Your task to perform on an android device: Search for sushi restaurants on Maps Image 0: 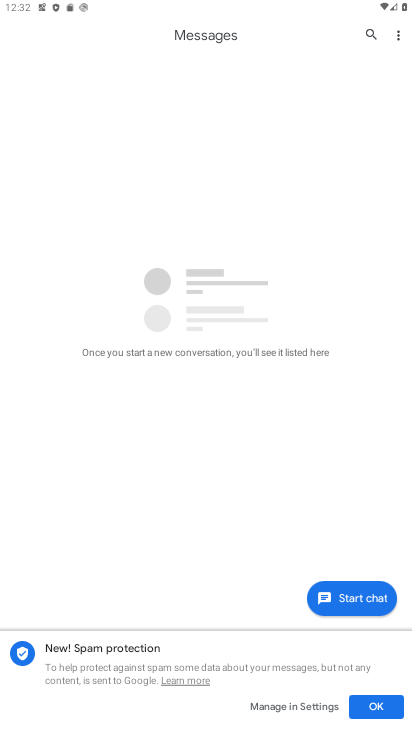
Step 0: drag from (209, 572) to (232, 298)
Your task to perform on an android device: Search for sushi restaurants on Maps Image 1: 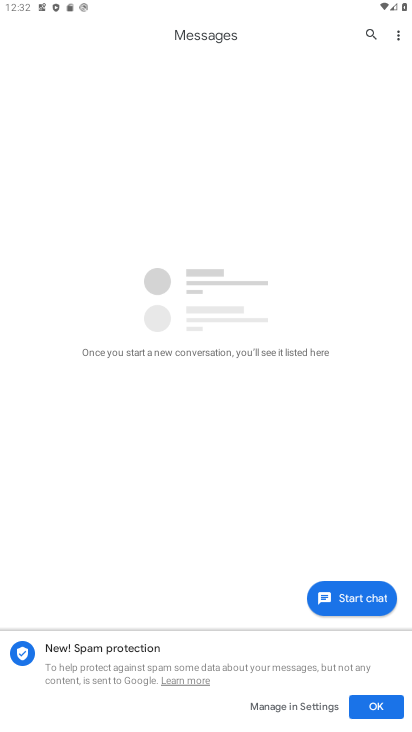
Step 1: press home button
Your task to perform on an android device: Search for sushi restaurants on Maps Image 2: 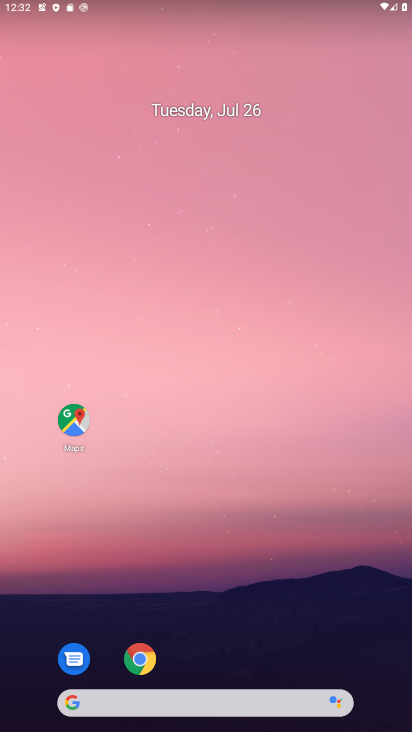
Step 2: drag from (241, 643) to (317, 49)
Your task to perform on an android device: Search for sushi restaurants on Maps Image 3: 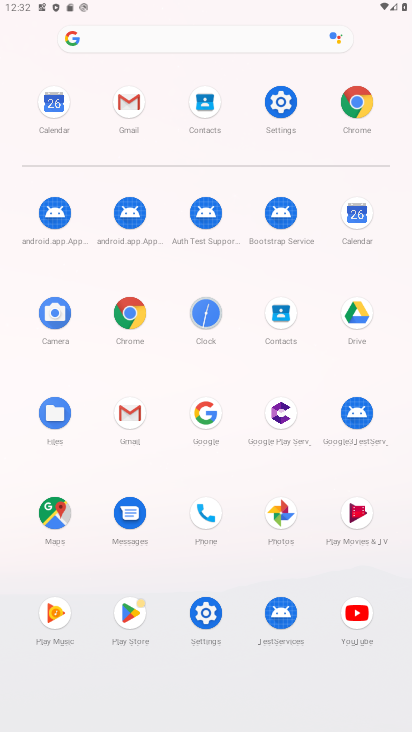
Step 3: click (51, 506)
Your task to perform on an android device: Search for sushi restaurants on Maps Image 4: 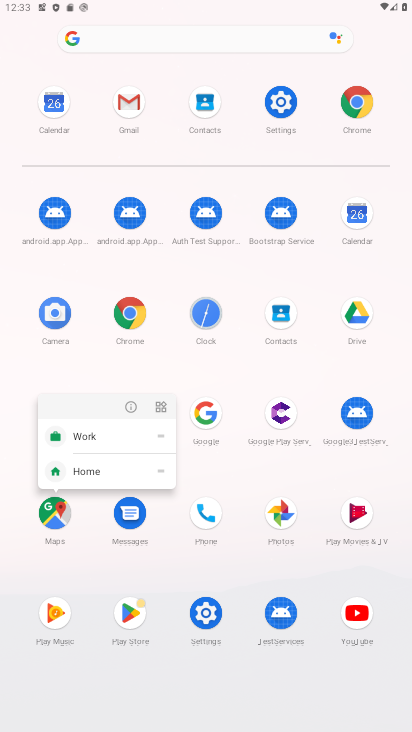
Step 4: click (135, 405)
Your task to perform on an android device: Search for sushi restaurants on Maps Image 5: 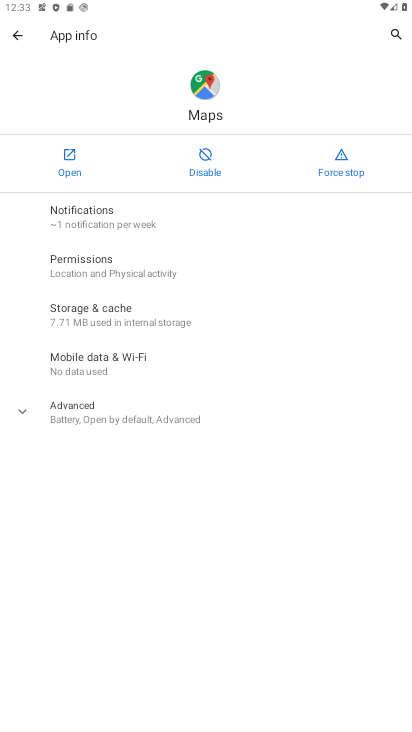
Step 5: click (69, 158)
Your task to perform on an android device: Search for sushi restaurants on Maps Image 6: 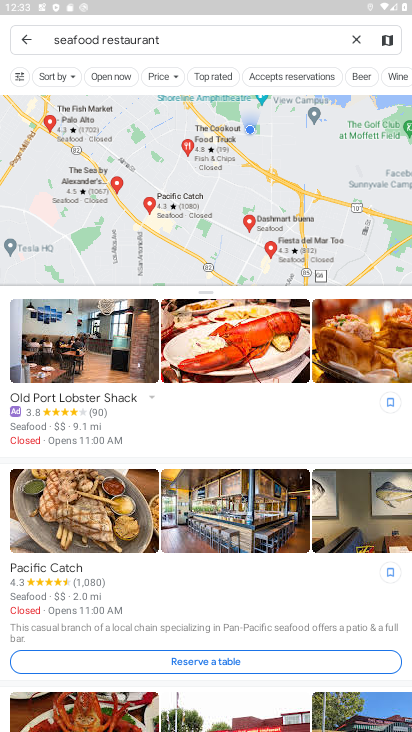
Step 6: drag from (194, 490) to (267, 196)
Your task to perform on an android device: Search for sushi restaurants on Maps Image 7: 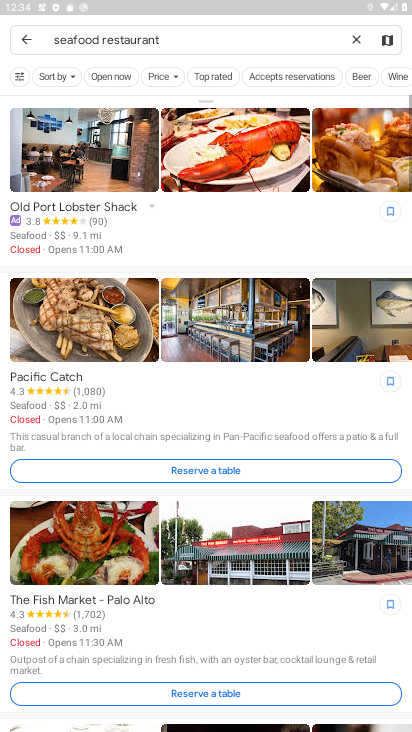
Step 7: click (359, 42)
Your task to perform on an android device: Search for sushi restaurants on Maps Image 8: 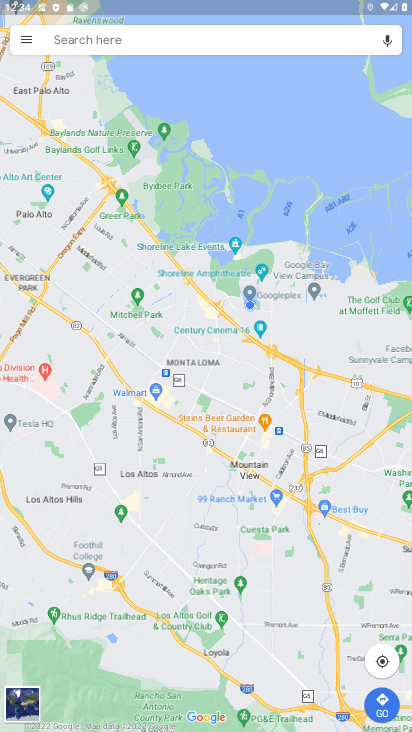
Step 8: drag from (170, 617) to (241, 334)
Your task to perform on an android device: Search for sushi restaurants on Maps Image 9: 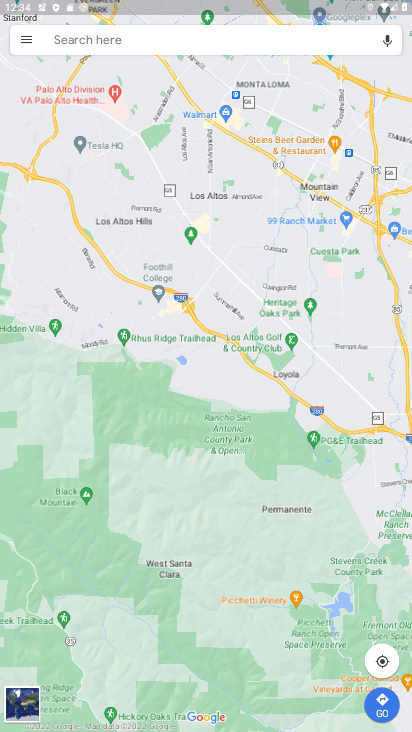
Step 9: click (118, 46)
Your task to perform on an android device: Search for sushi restaurants on Maps Image 10: 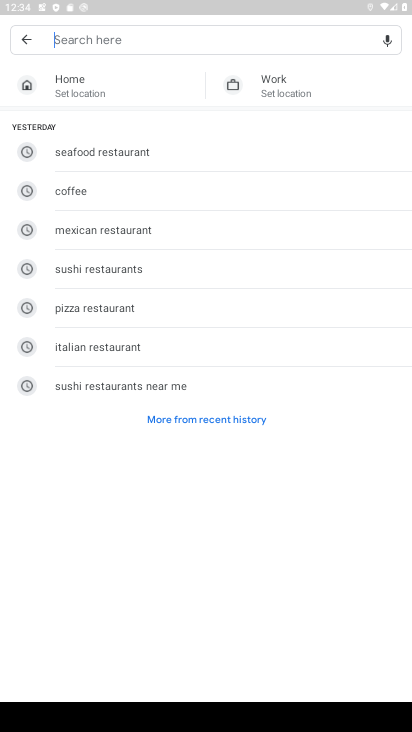
Step 10: click (89, 264)
Your task to perform on an android device: Search for sushi restaurants on Maps Image 11: 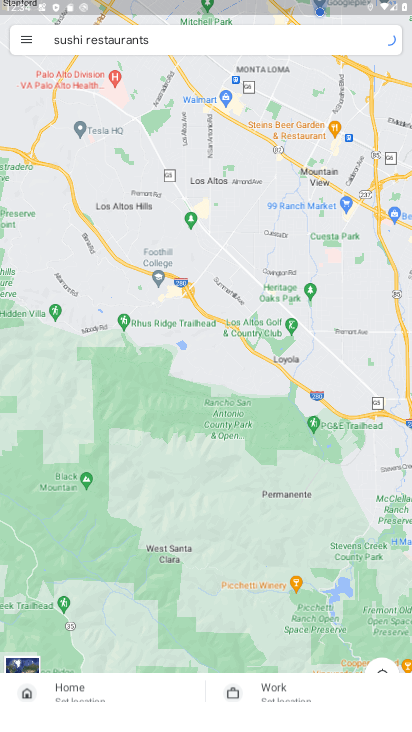
Step 11: task complete